Your task to perform on an android device: toggle translation in the chrome app Image 0: 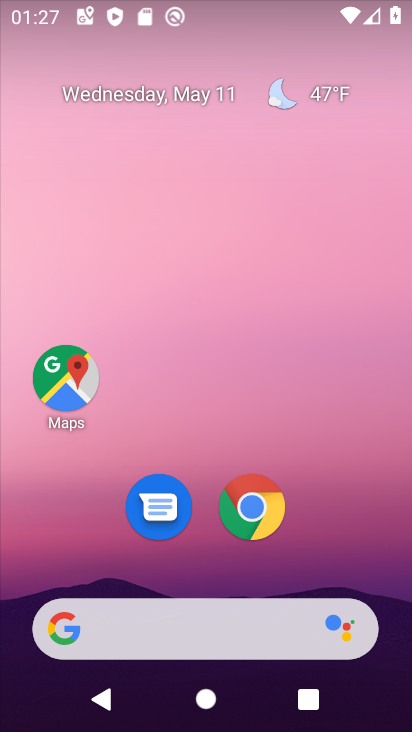
Step 0: click (249, 508)
Your task to perform on an android device: toggle translation in the chrome app Image 1: 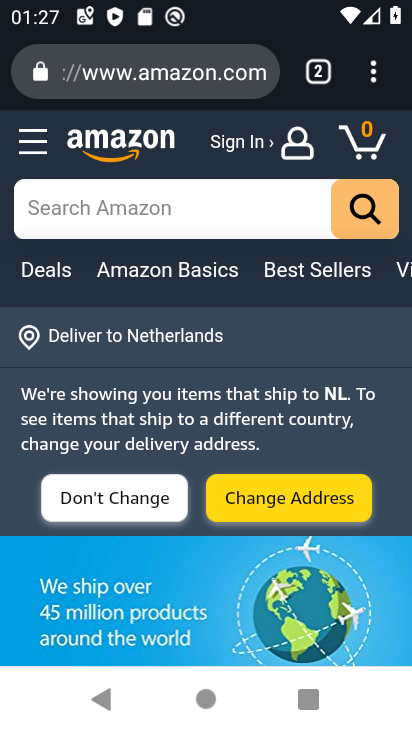
Step 1: click (373, 67)
Your task to perform on an android device: toggle translation in the chrome app Image 2: 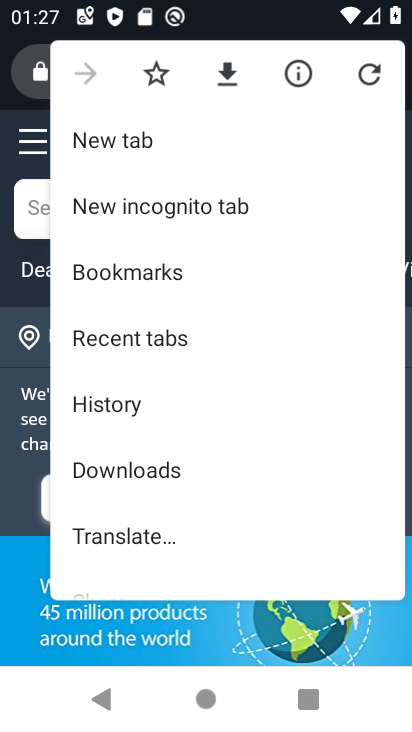
Step 2: click (128, 134)
Your task to perform on an android device: toggle translation in the chrome app Image 3: 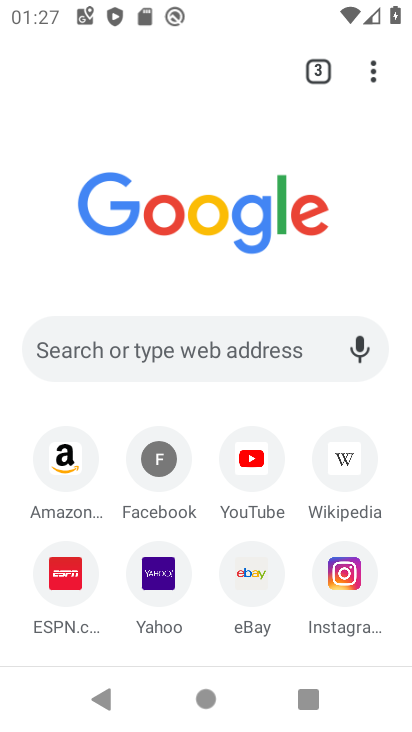
Step 3: click (374, 70)
Your task to perform on an android device: toggle translation in the chrome app Image 4: 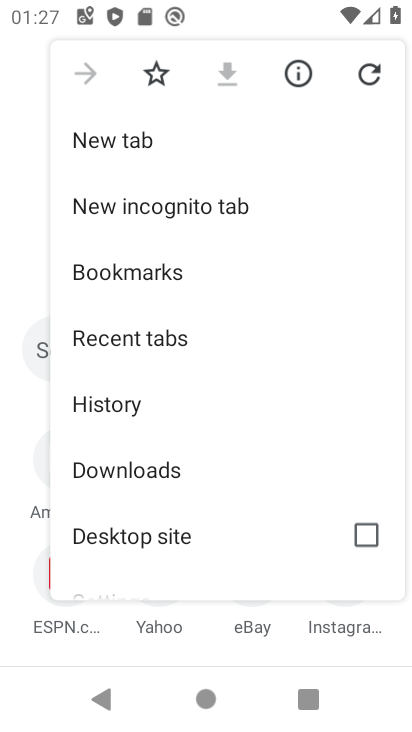
Step 4: drag from (244, 489) to (160, 46)
Your task to perform on an android device: toggle translation in the chrome app Image 5: 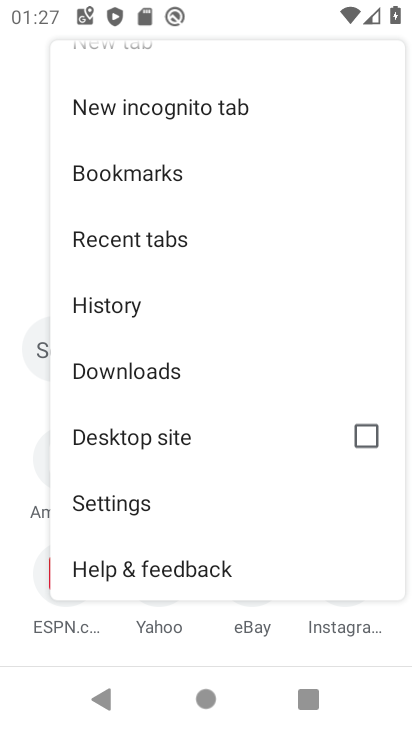
Step 5: click (109, 500)
Your task to perform on an android device: toggle translation in the chrome app Image 6: 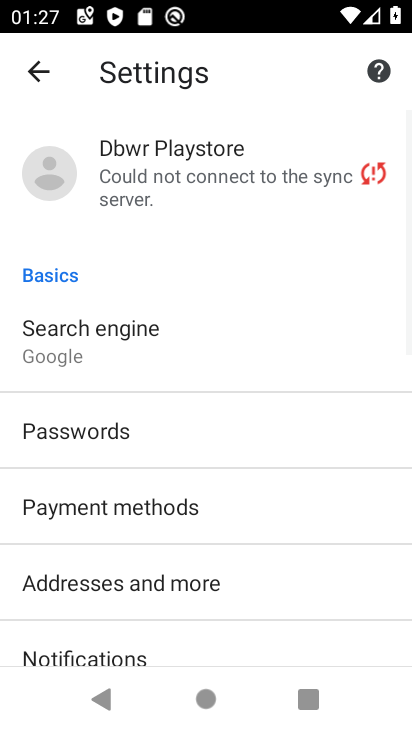
Step 6: drag from (209, 511) to (138, 137)
Your task to perform on an android device: toggle translation in the chrome app Image 7: 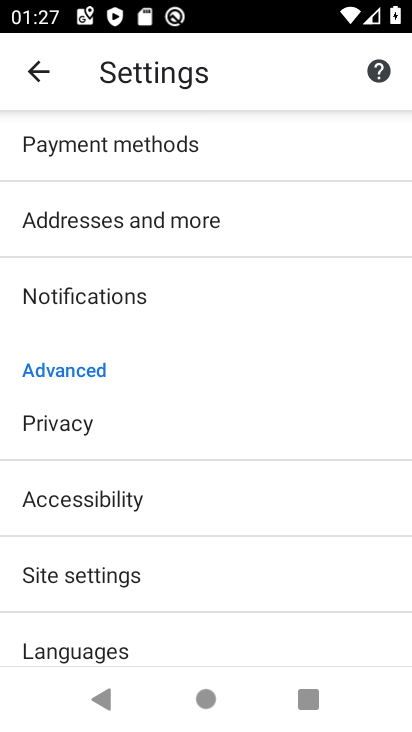
Step 7: drag from (210, 553) to (179, 391)
Your task to perform on an android device: toggle translation in the chrome app Image 8: 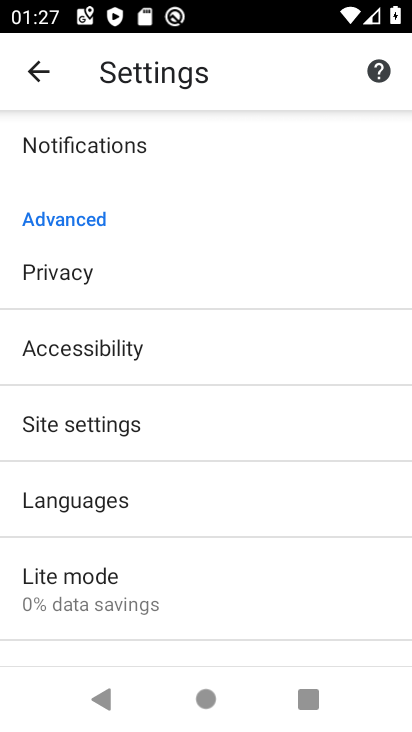
Step 8: click (90, 497)
Your task to perform on an android device: toggle translation in the chrome app Image 9: 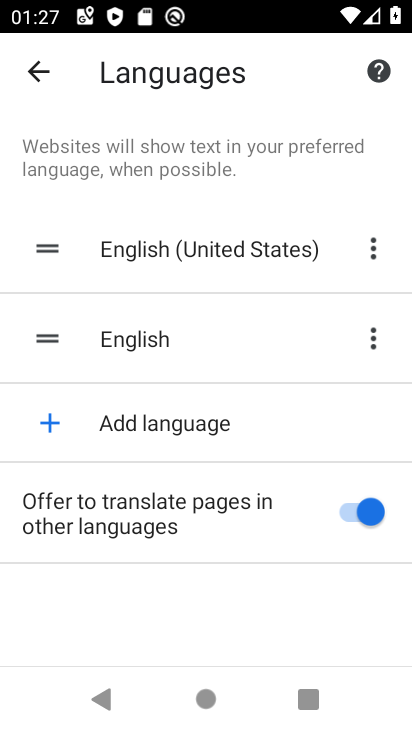
Step 9: click (375, 506)
Your task to perform on an android device: toggle translation in the chrome app Image 10: 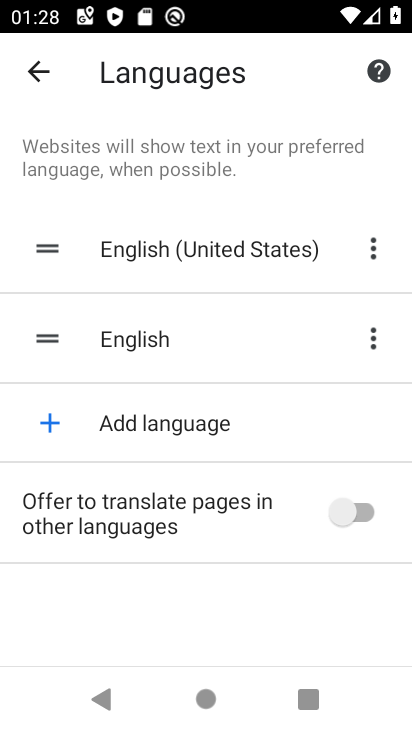
Step 10: task complete